Your task to perform on an android device: create a new album in the google photos Image 0: 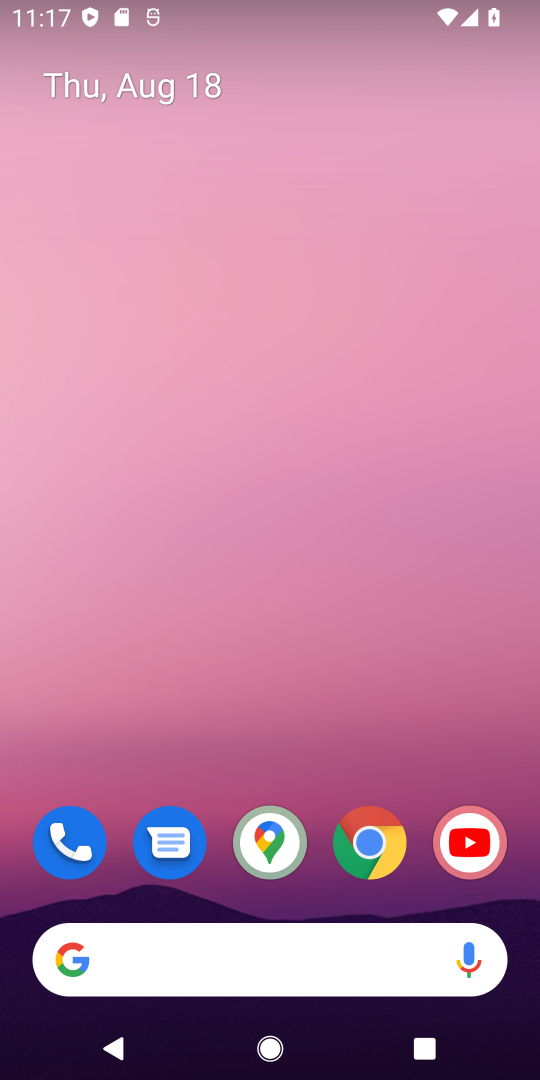
Step 0: drag from (297, 901) to (347, 131)
Your task to perform on an android device: create a new album in the google photos Image 1: 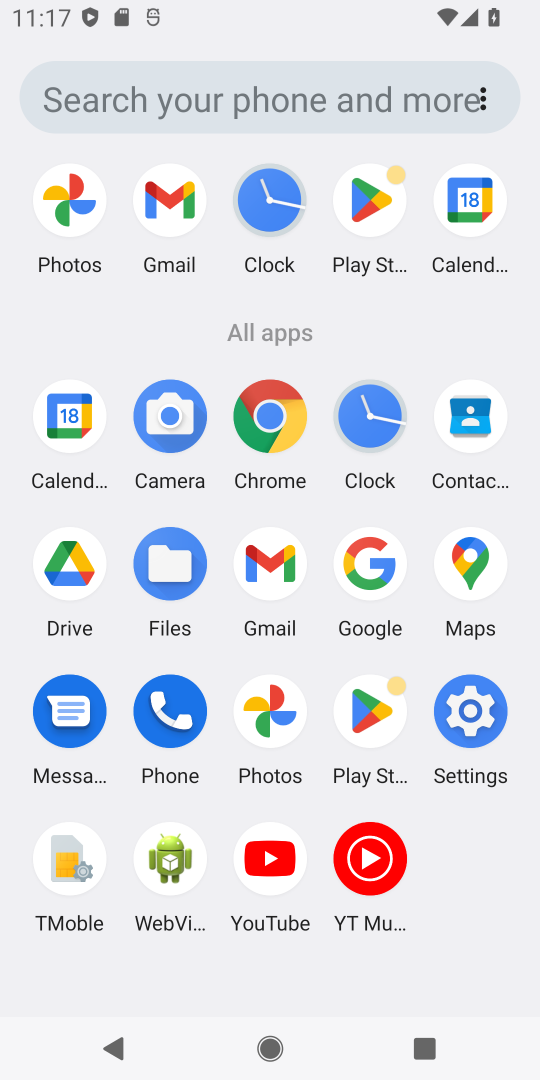
Step 1: click (49, 193)
Your task to perform on an android device: create a new album in the google photos Image 2: 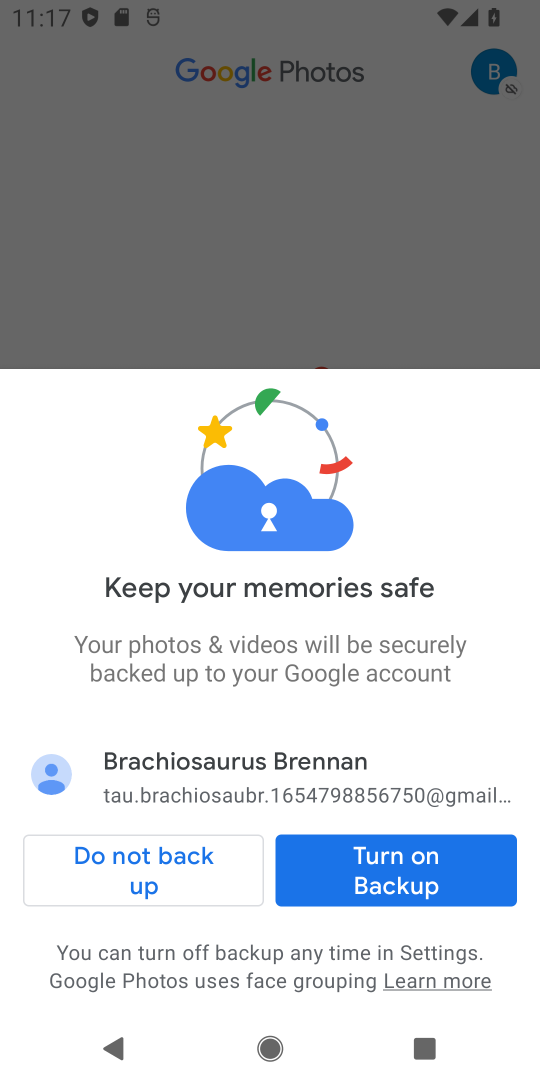
Step 2: click (355, 894)
Your task to perform on an android device: create a new album in the google photos Image 3: 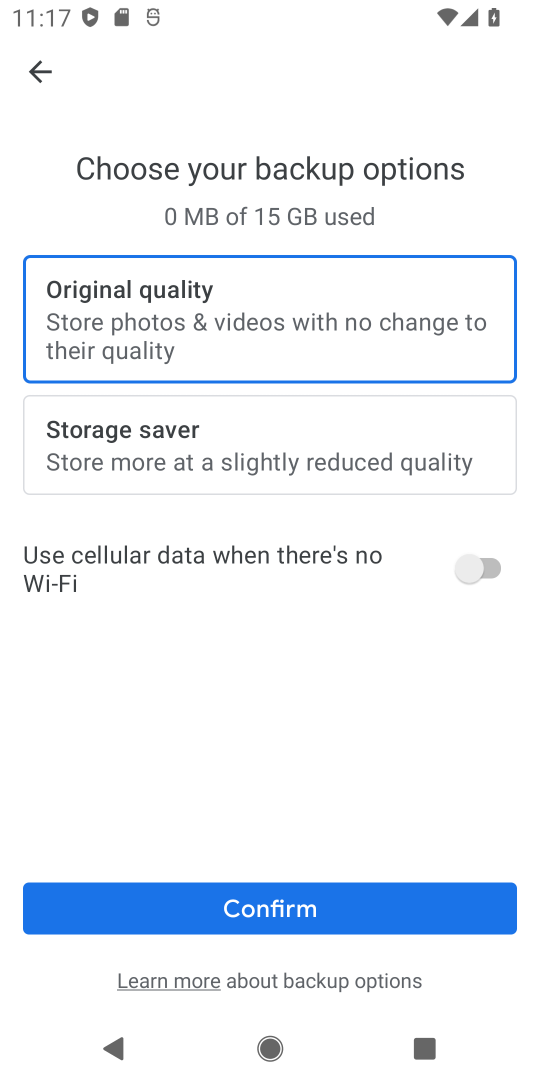
Step 3: click (355, 894)
Your task to perform on an android device: create a new album in the google photos Image 4: 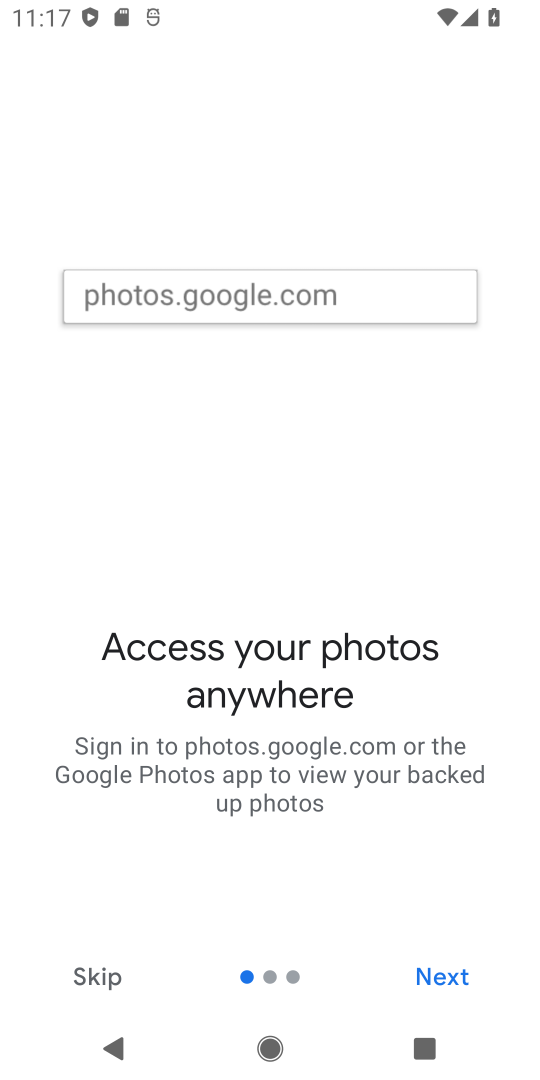
Step 4: click (468, 982)
Your task to perform on an android device: create a new album in the google photos Image 5: 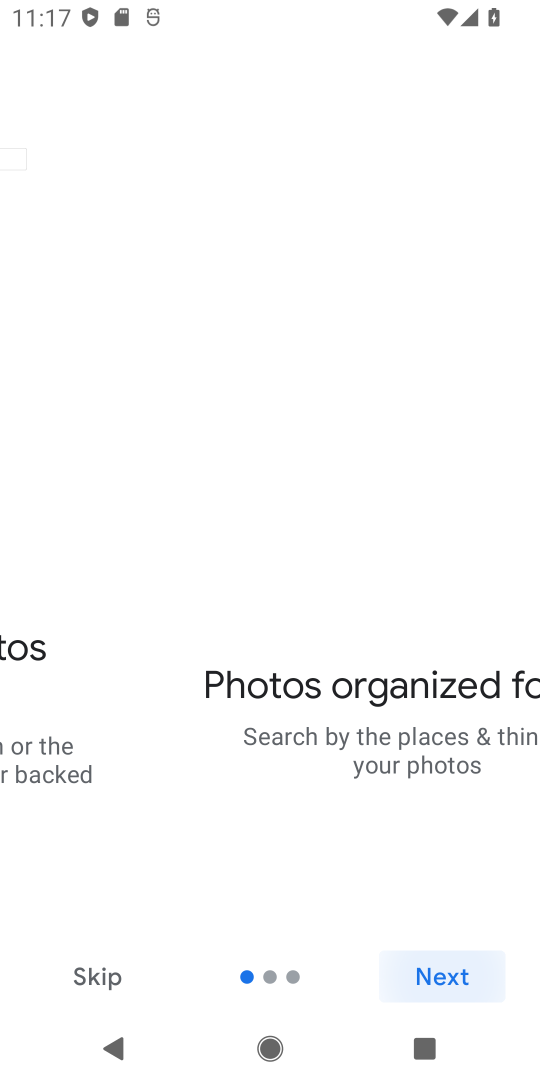
Step 5: click (468, 982)
Your task to perform on an android device: create a new album in the google photos Image 6: 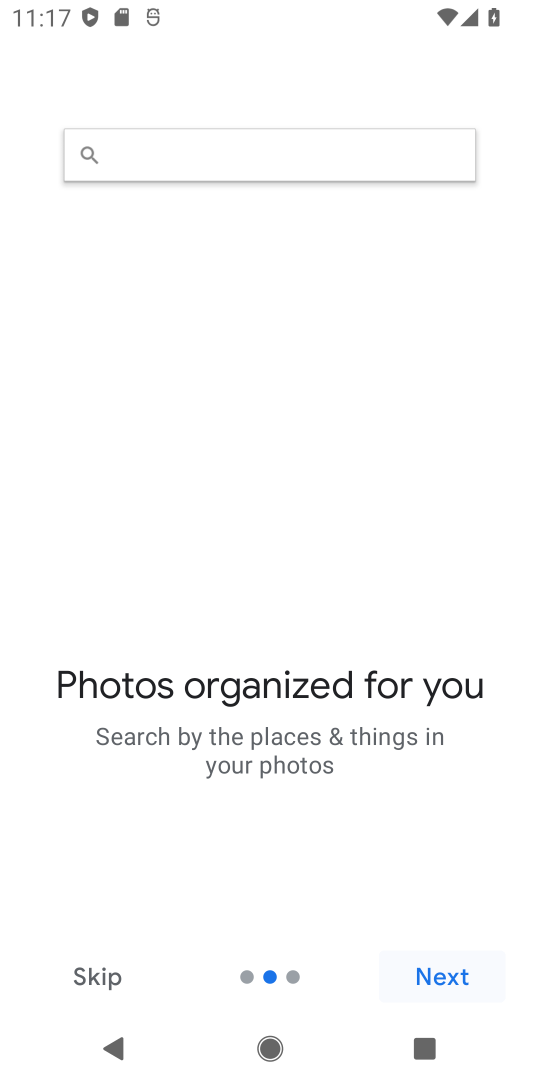
Step 6: click (468, 982)
Your task to perform on an android device: create a new album in the google photos Image 7: 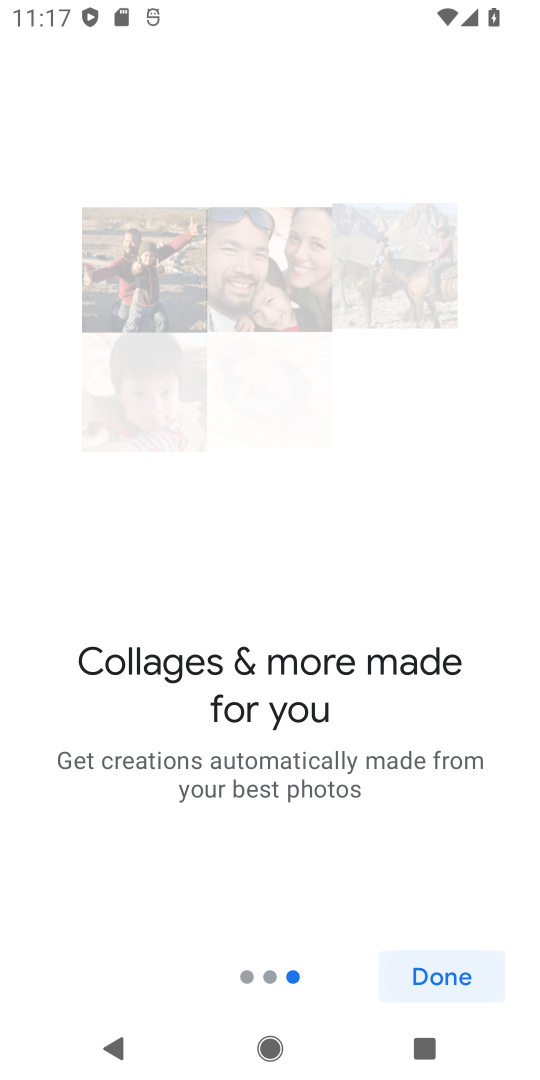
Step 7: click (468, 982)
Your task to perform on an android device: create a new album in the google photos Image 8: 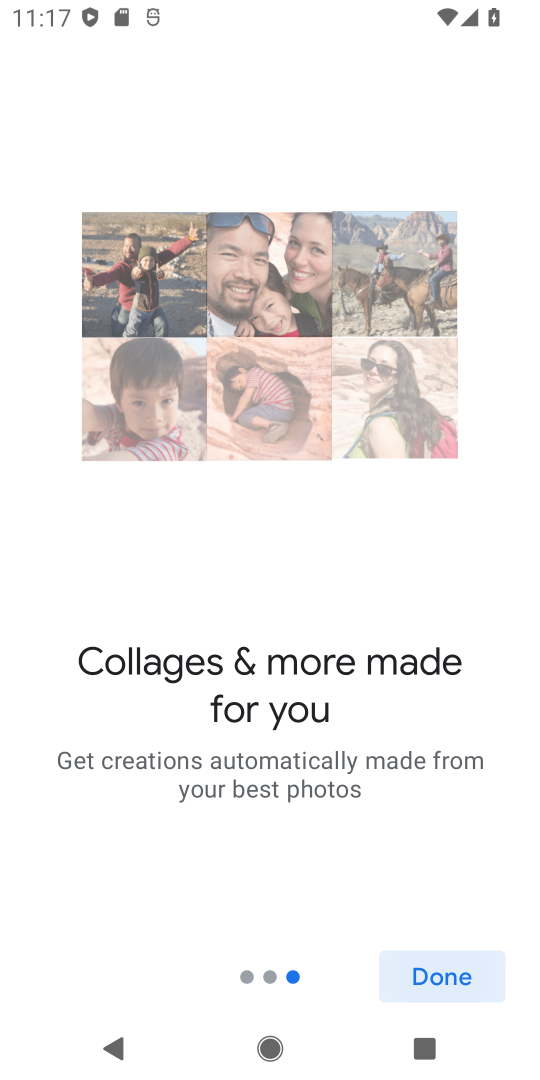
Step 8: click (468, 982)
Your task to perform on an android device: create a new album in the google photos Image 9: 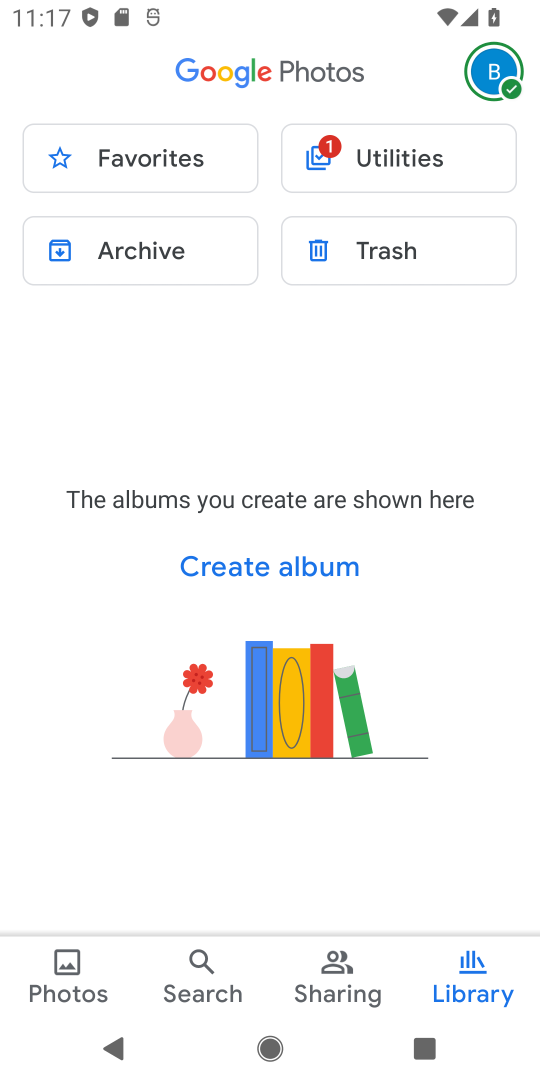
Step 9: task complete